Your task to perform on an android device: change your default location settings in chrome Image 0: 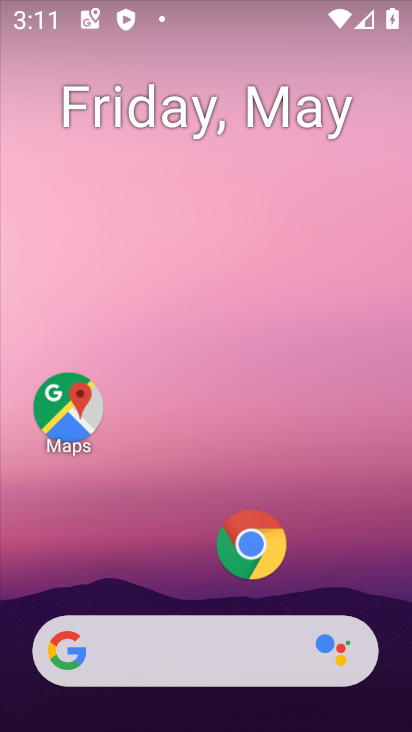
Step 0: click (235, 554)
Your task to perform on an android device: change your default location settings in chrome Image 1: 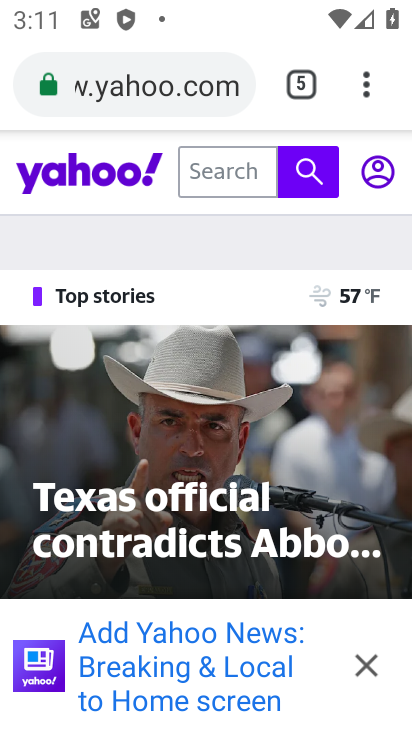
Step 1: drag from (369, 80) to (85, 601)
Your task to perform on an android device: change your default location settings in chrome Image 2: 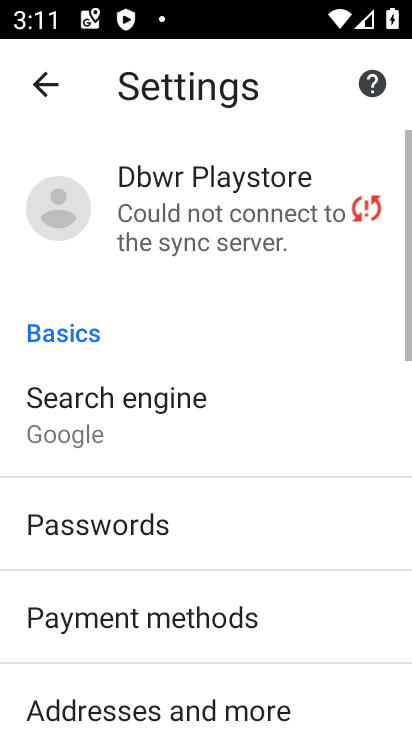
Step 2: drag from (206, 651) to (239, 312)
Your task to perform on an android device: change your default location settings in chrome Image 3: 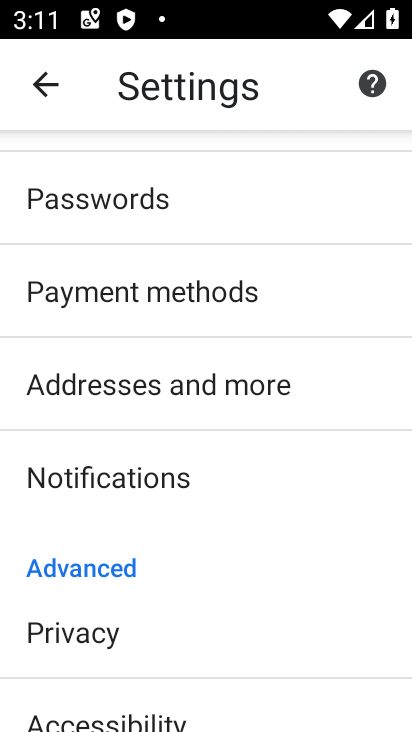
Step 3: drag from (181, 652) to (241, 202)
Your task to perform on an android device: change your default location settings in chrome Image 4: 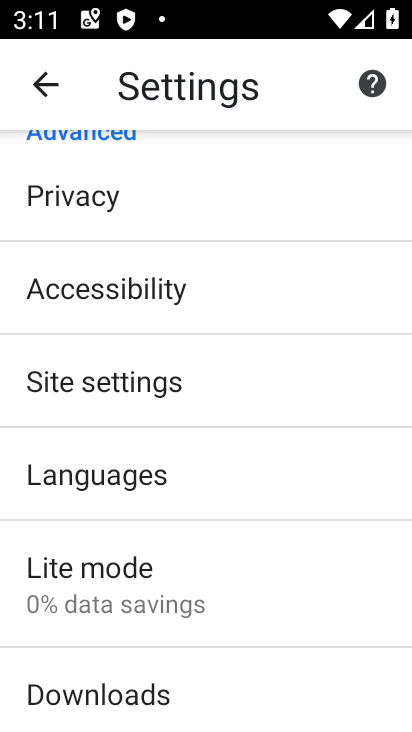
Step 4: click (135, 385)
Your task to perform on an android device: change your default location settings in chrome Image 5: 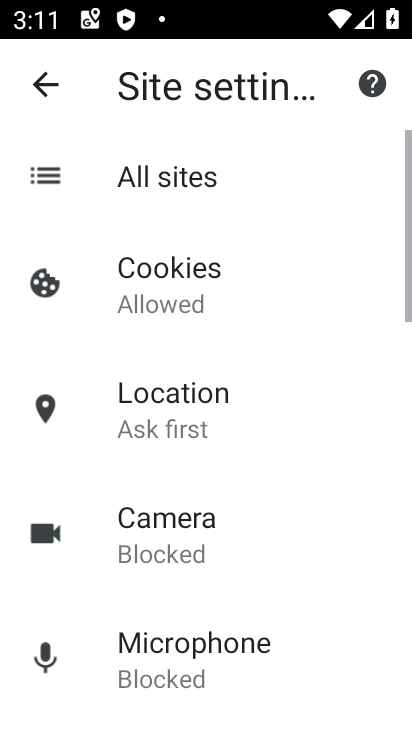
Step 5: click (149, 375)
Your task to perform on an android device: change your default location settings in chrome Image 6: 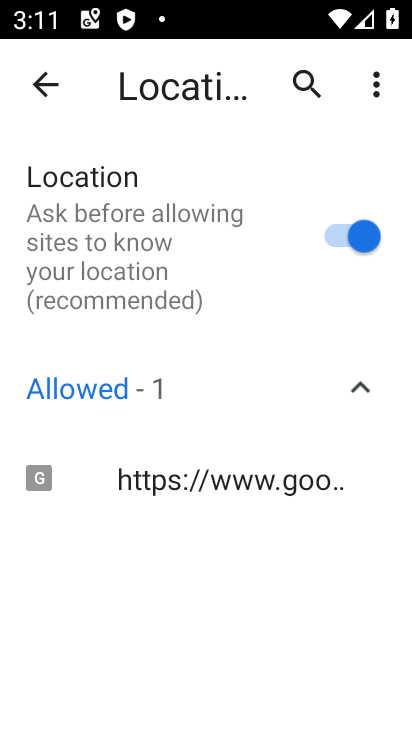
Step 6: click (327, 233)
Your task to perform on an android device: change your default location settings in chrome Image 7: 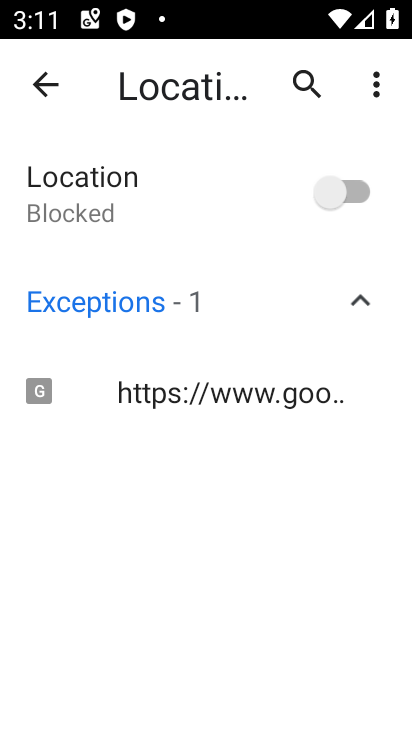
Step 7: task complete